Your task to perform on an android device: delete a single message in the gmail app Image 0: 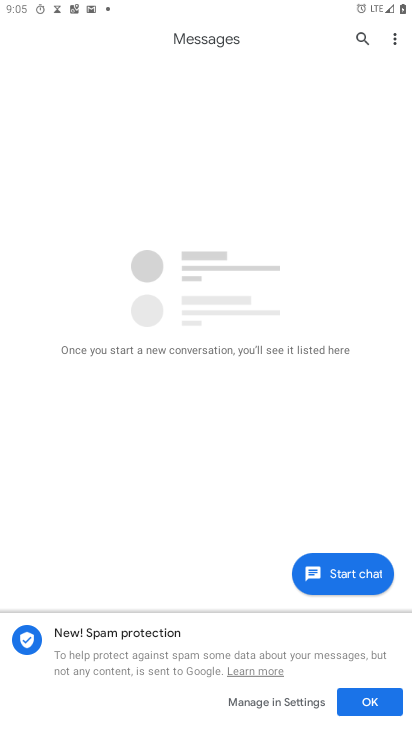
Step 0: click (141, 688)
Your task to perform on an android device: delete a single message in the gmail app Image 1: 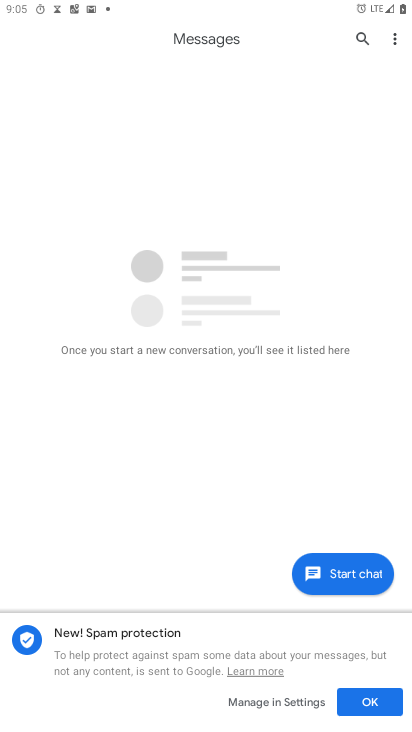
Step 1: press home button
Your task to perform on an android device: delete a single message in the gmail app Image 2: 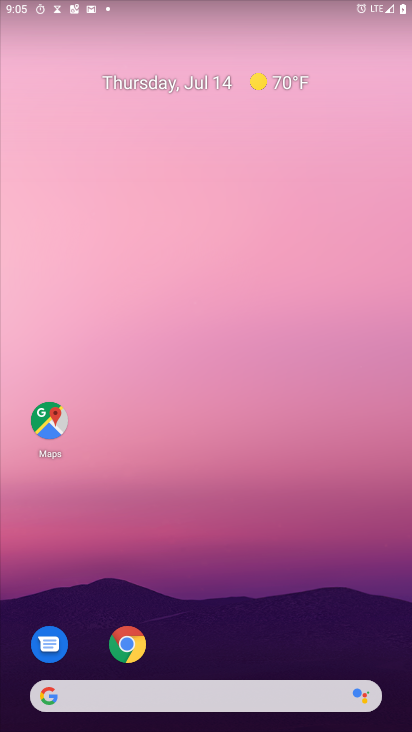
Step 2: drag from (149, 690) to (311, 121)
Your task to perform on an android device: delete a single message in the gmail app Image 3: 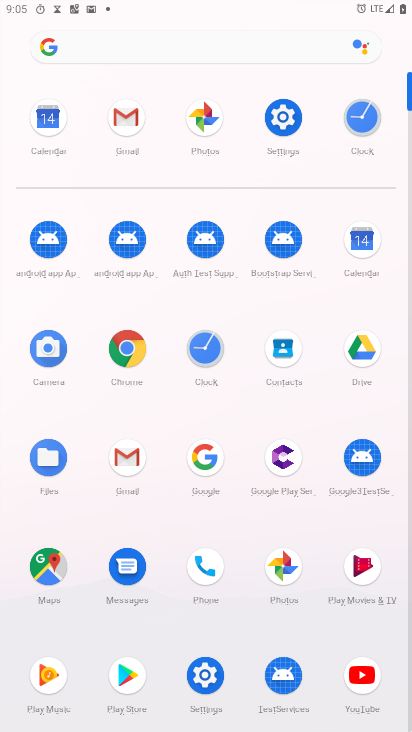
Step 3: click (126, 120)
Your task to perform on an android device: delete a single message in the gmail app Image 4: 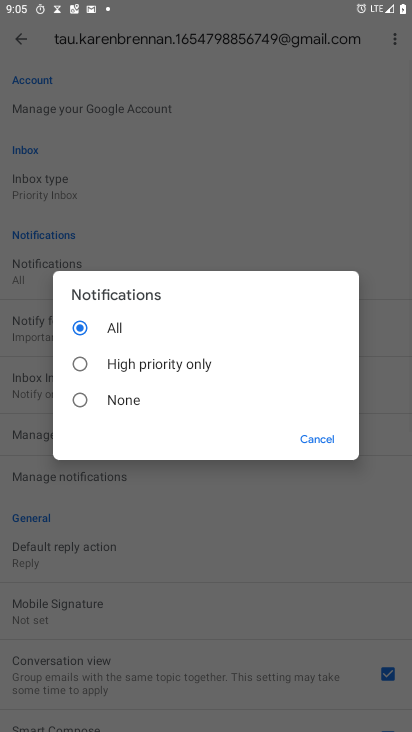
Step 4: click (304, 440)
Your task to perform on an android device: delete a single message in the gmail app Image 5: 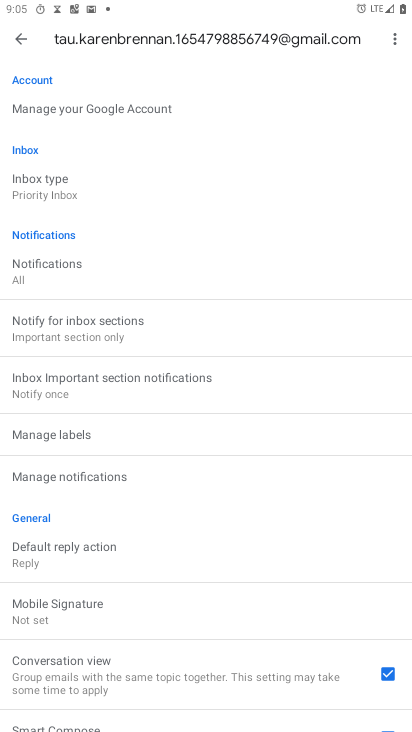
Step 5: click (21, 44)
Your task to perform on an android device: delete a single message in the gmail app Image 6: 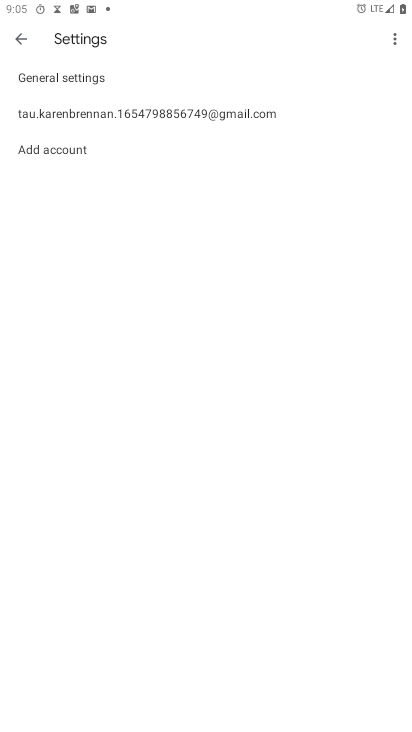
Step 6: click (21, 47)
Your task to perform on an android device: delete a single message in the gmail app Image 7: 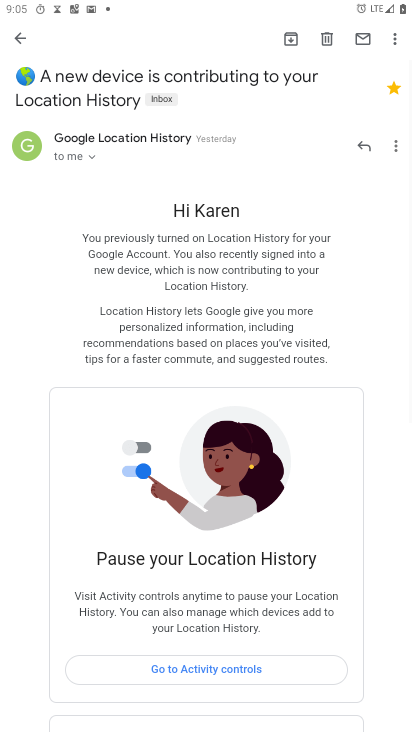
Step 7: click (21, 47)
Your task to perform on an android device: delete a single message in the gmail app Image 8: 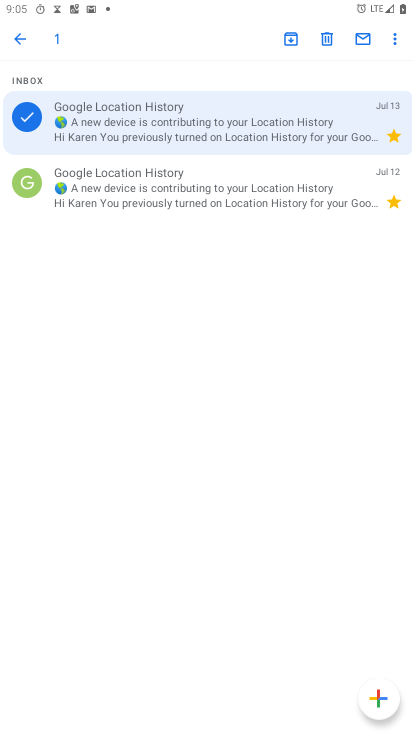
Step 8: click (325, 39)
Your task to perform on an android device: delete a single message in the gmail app Image 9: 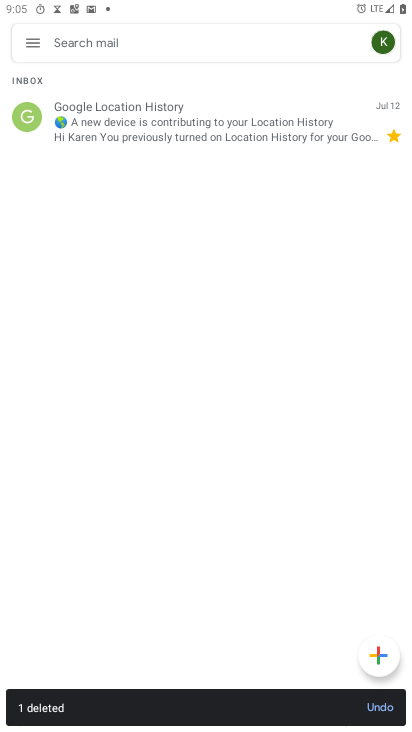
Step 9: task complete